Your task to perform on an android device: turn off picture-in-picture Image 0: 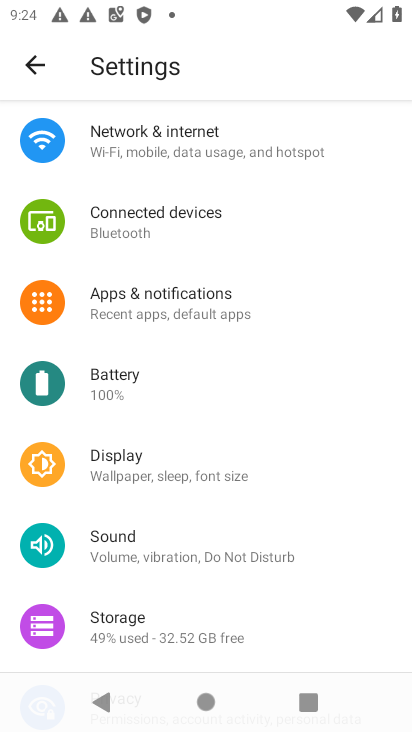
Step 0: drag from (366, 626) to (322, 202)
Your task to perform on an android device: turn off picture-in-picture Image 1: 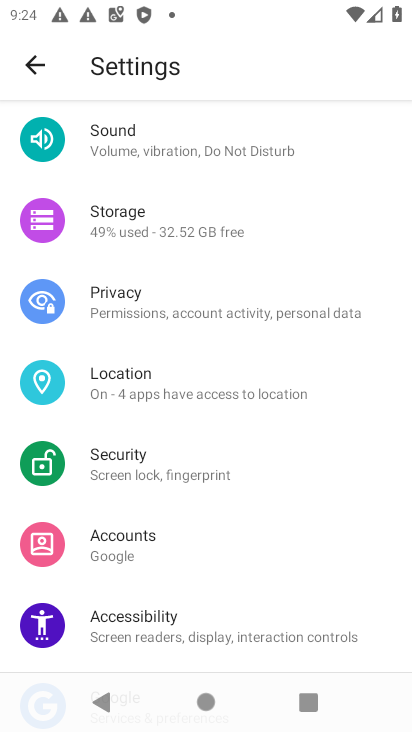
Step 1: press home button
Your task to perform on an android device: turn off picture-in-picture Image 2: 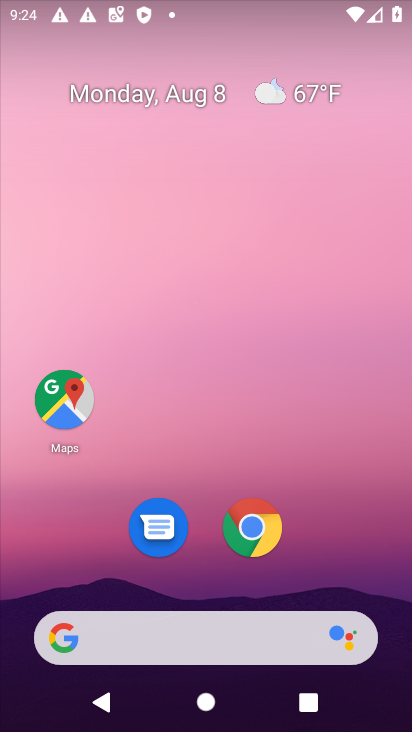
Step 2: click (243, 521)
Your task to perform on an android device: turn off picture-in-picture Image 3: 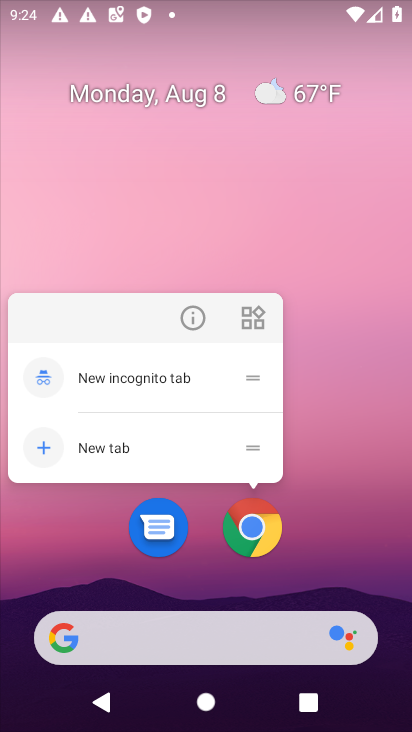
Step 3: click (186, 312)
Your task to perform on an android device: turn off picture-in-picture Image 4: 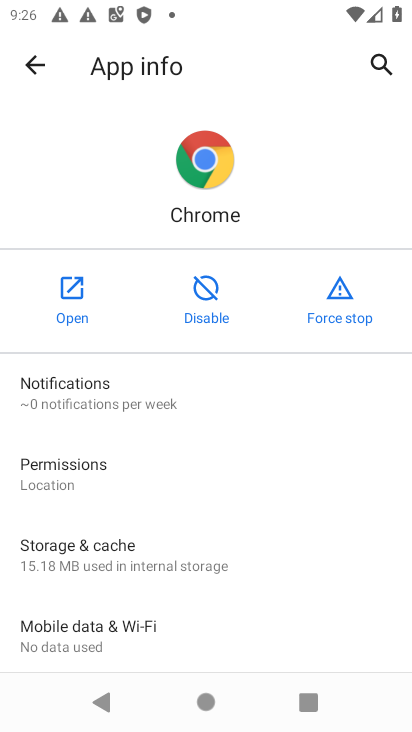
Step 4: drag from (202, 604) to (220, 311)
Your task to perform on an android device: turn off picture-in-picture Image 5: 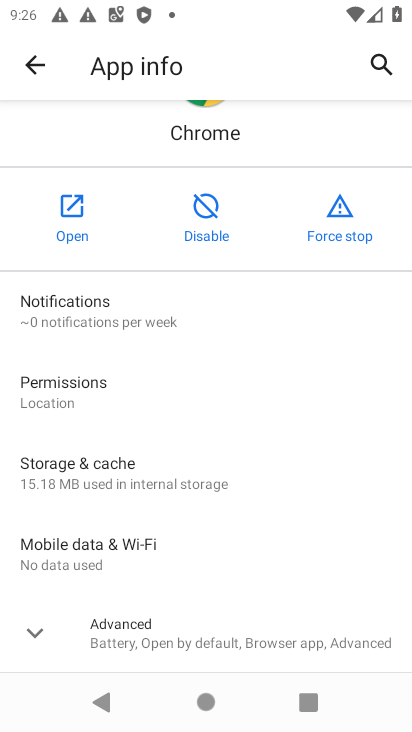
Step 5: drag from (239, 517) to (234, 261)
Your task to perform on an android device: turn off picture-in-picture Image 6: 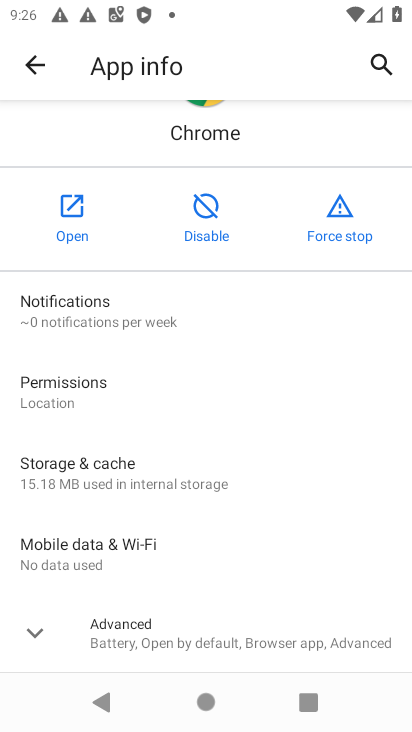
Step 6: click (52, 624)
Your task to perform on an android device: turn off picture-in-picture Image 7: 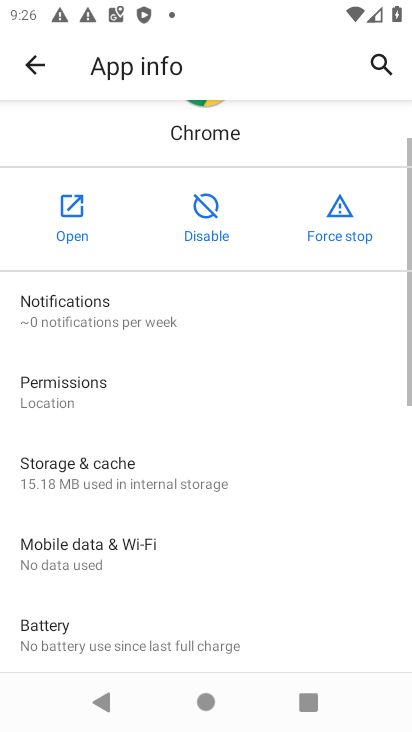
Step 7: drag from (247, 633) to (241, 244)
Your task to perform on an android device: turn off picture-in-picture Image 8: 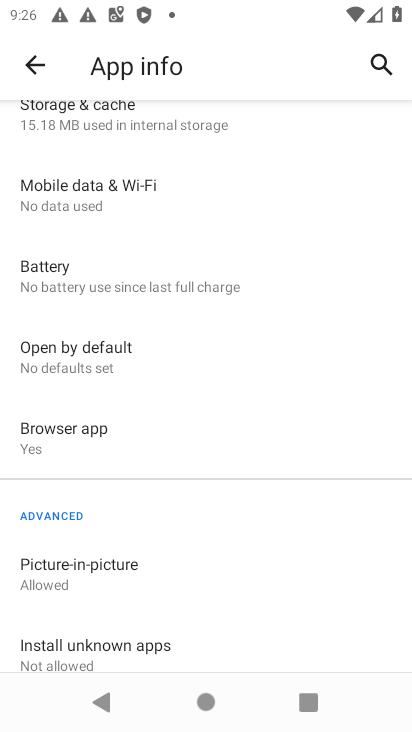
Step 8: click (41, 560)
Your task to perform on an android device: turn off picture-in-picture Image 9: 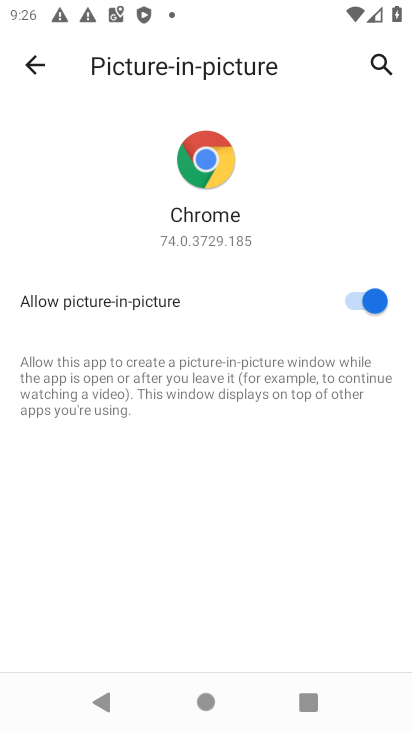
Step 9: click (353, 293)
Your task to perform on an android device: turn off picture-in-picture Image 10: 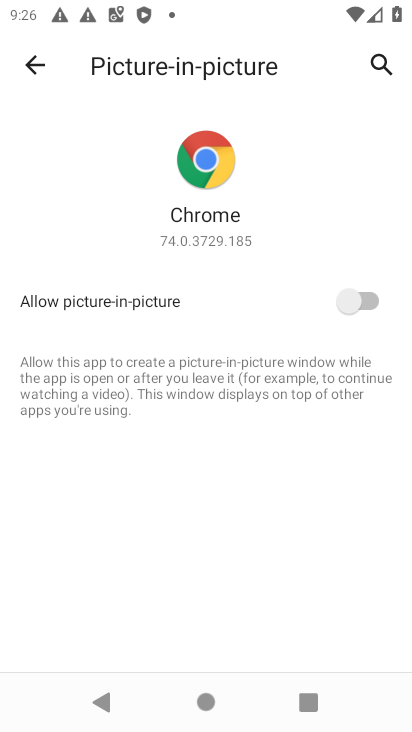
Step 10: task complete